Your task to perform on an android device: empty trash in google photos Image 0: 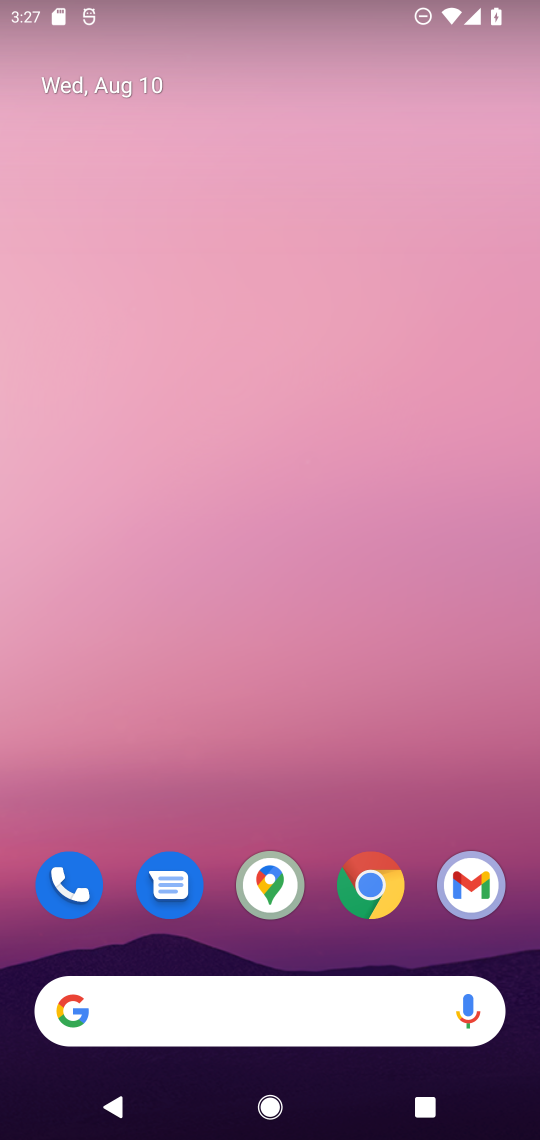
Step 0: drag from (306, 808) to (229, 108)
Your task to perform on an android device: empty trash in google photos Image 1: 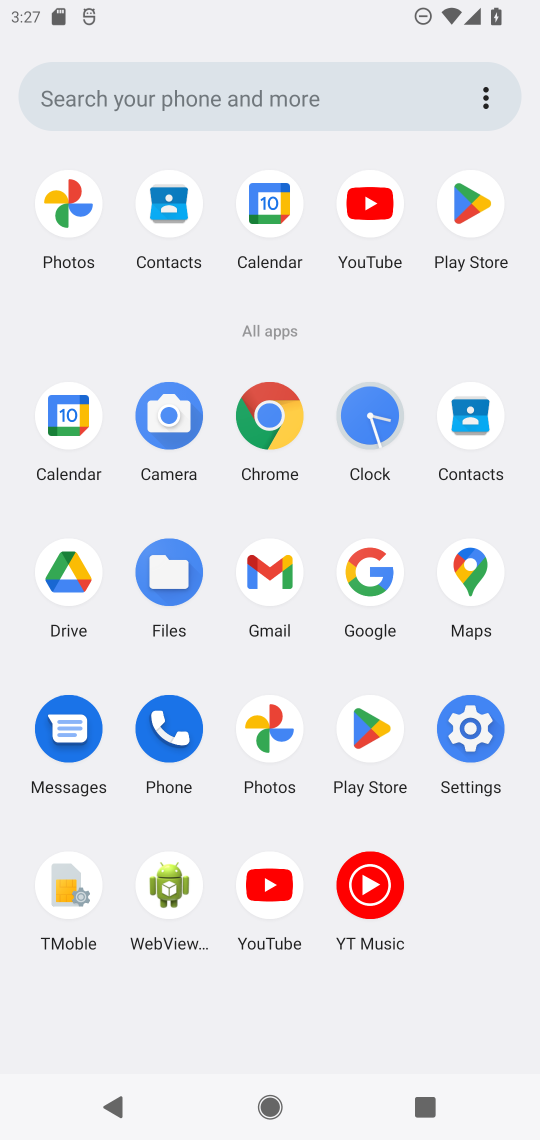
Step 1: click (268, 731)
Your task to perform on an android device: empty trash in google photos Image 2: 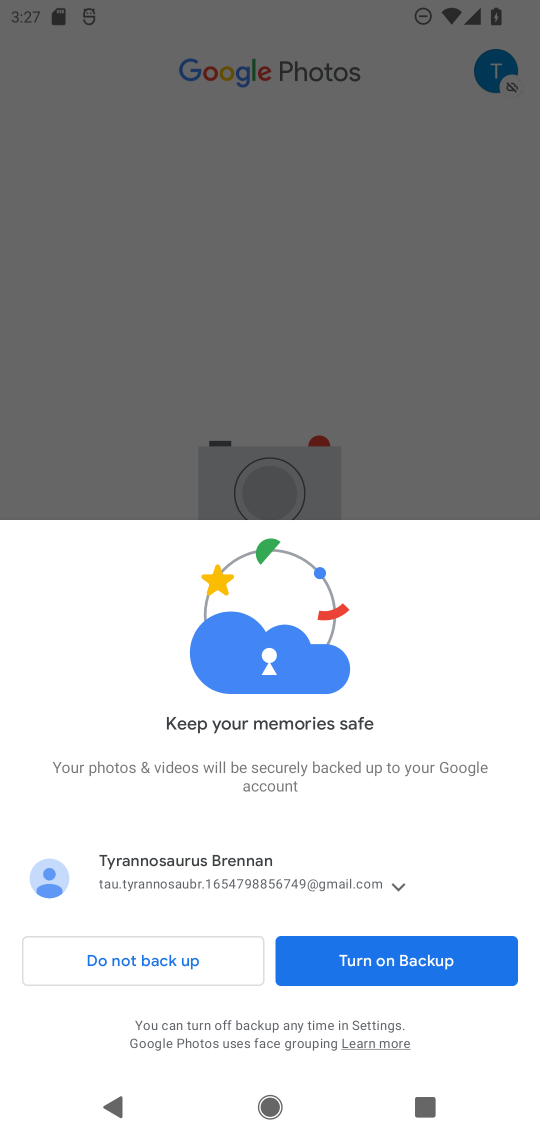
Step 2: click (191, 960)
Your task to perform on an android device: empty trash in google photos Image 3: 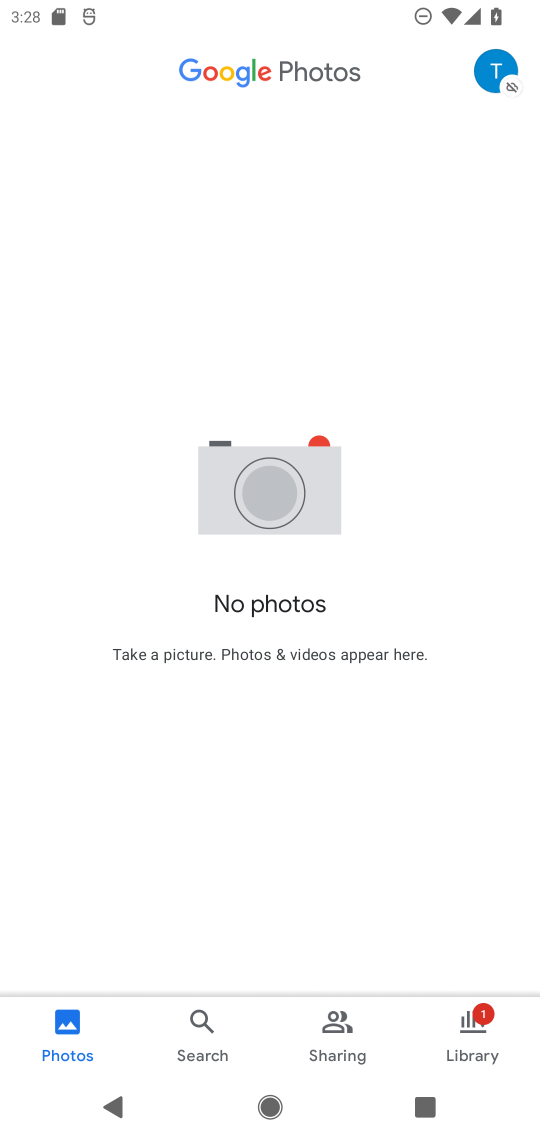
Step 3: click (465, 1025)
Your task to perform on an android device: empty trash in google photos Image 4: 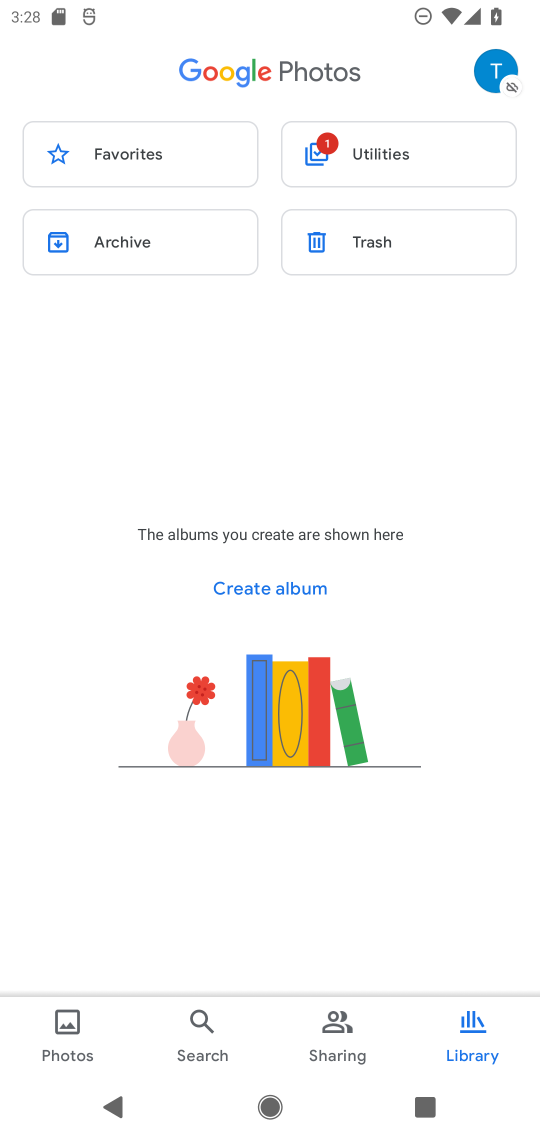
Step 4: click (381, 234)
Your task to perform on an android device: empty trash in google photos Image 5: 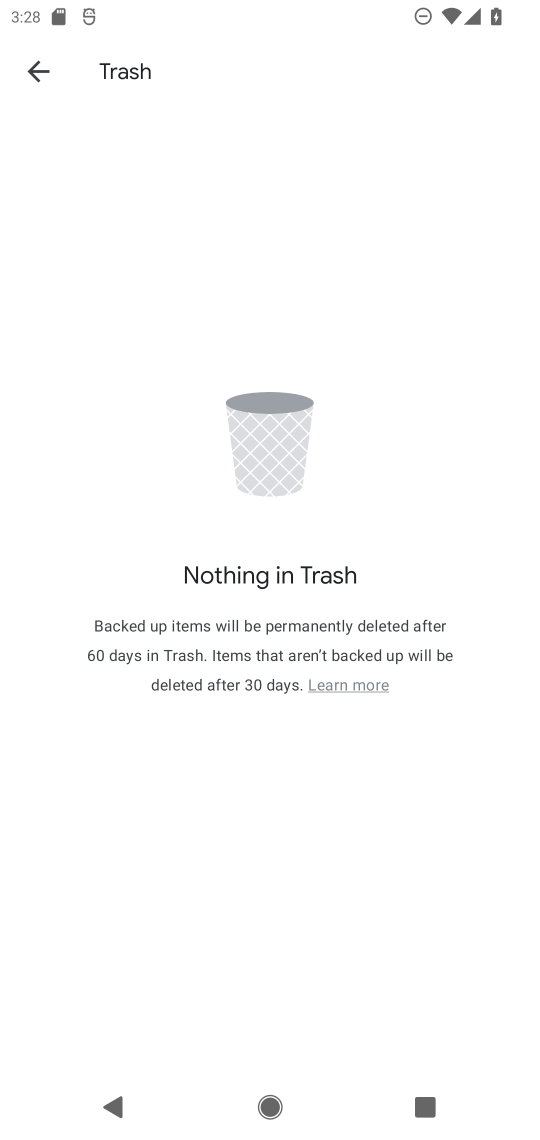
Step 5: task complete